Your task to perform on an android device: Open Amazon Image 0: 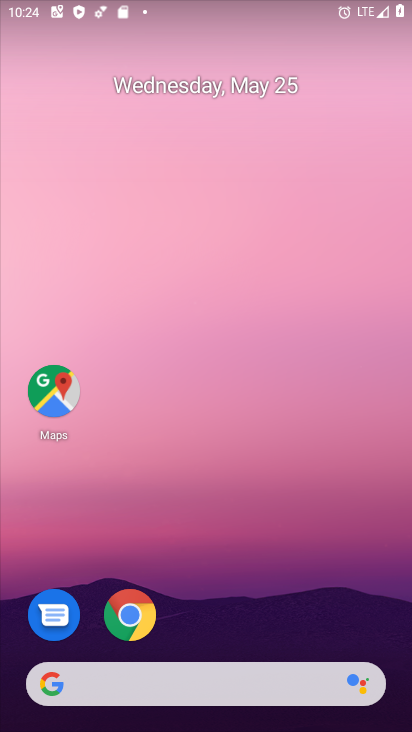
Step 0: drag from (282, 596) to (275, 96)
Your task to perform on an android device: Open Amazon Image 1: 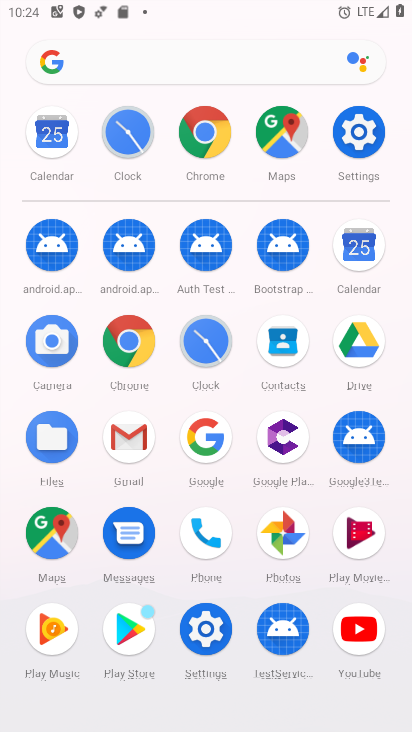
Step 1: click (218, 127)
Your task to perform on an android device: Open Amazon Image 2: 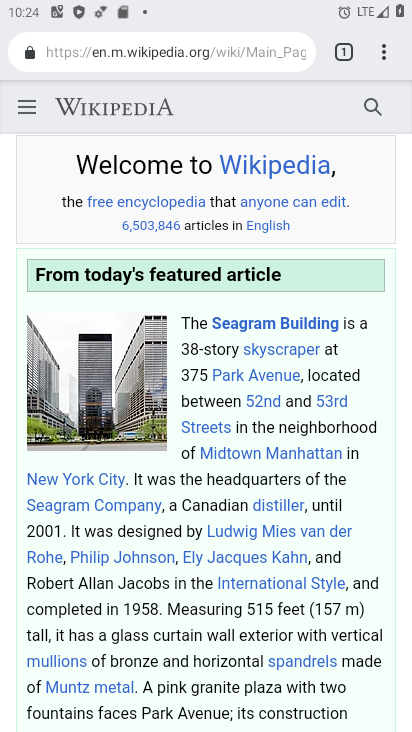
Step 2: click (376, 48)
Your task to perform on an android device: Open Amazon Image 3: 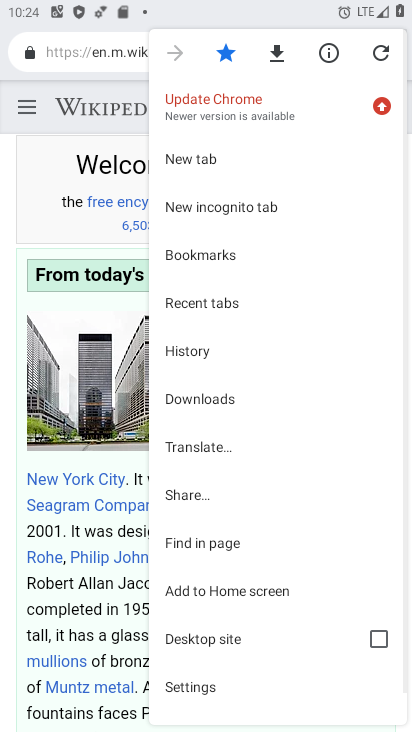
Step 3: click (267, 154)
Your task to perform on an android device: Open Amazon Image 4: 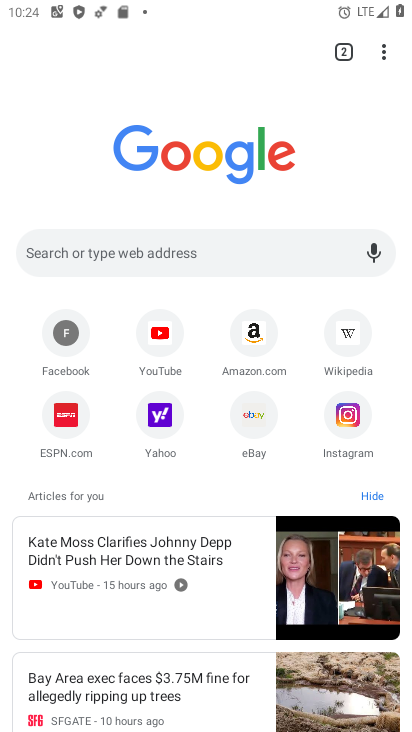
Step 4: click (251, 329)
Your task to perform on an android device: Open Amazon Image 5: 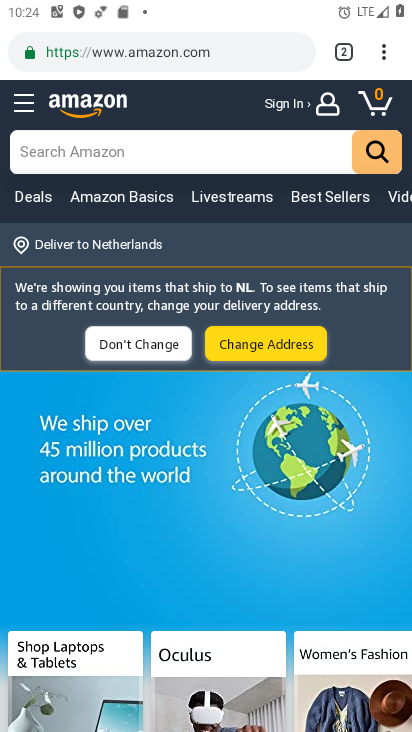
Step 5: task complete